Your task to perform on an android device: turn on bluetooth scan Image 0: 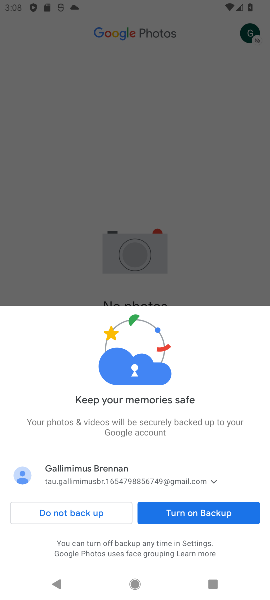
Step 0: press home button
Your task to perform on an android device: turn on bluetooth scan Image 1: 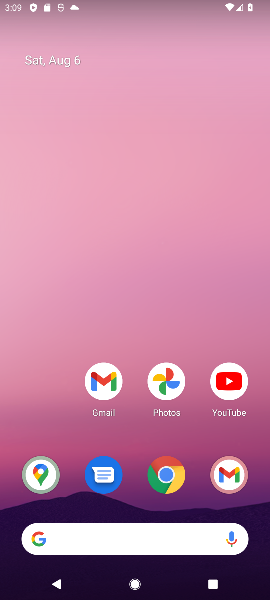
Step 1: drag from (41, 585) to (237, 104)
Your task to perform on an android device: turn on bluetooth scan Image 2: 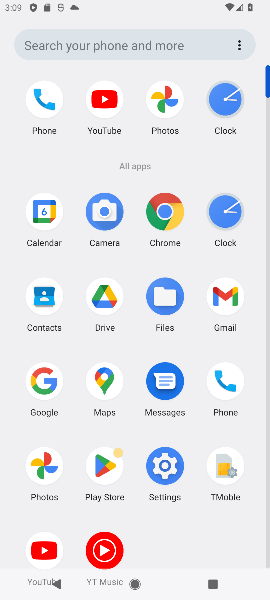
Step 2: click (162, 464)
Your task to perform on an android device: turn on bluetooth scan Image 3: 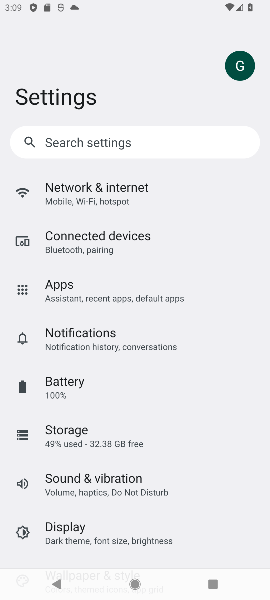
Step 3: click (110, 241)
Your task to perform on an android device: turn on bluetooth scan Image 4: 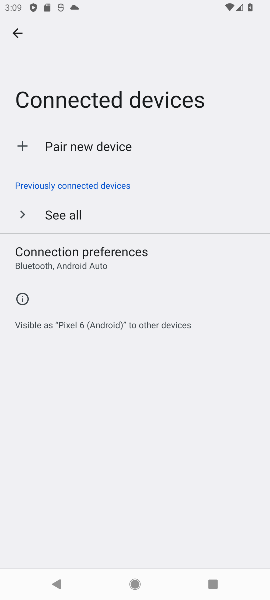
Step 4: click (74, 252)
Your task to perform on an android device: turn on bluetooth scan Image 5: 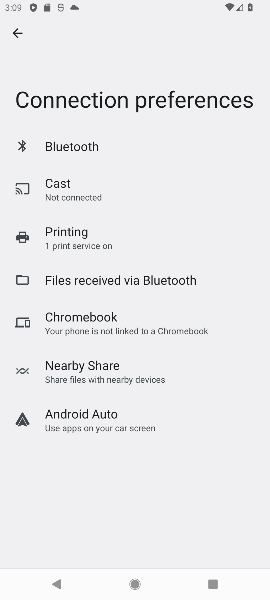
Step 5: click (95, 154)
Your task to perform on an android device: turn on bluetooth scan Image 6: 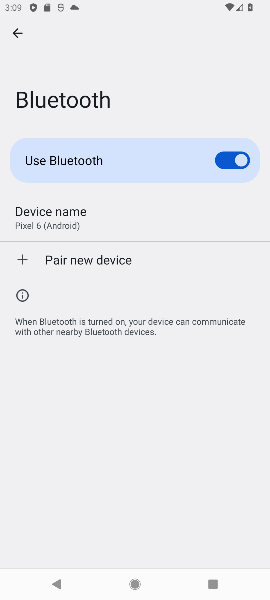
Step 6: task complete